Your task to perform on an android device: What's a good restaurant in Houston? Image 0: 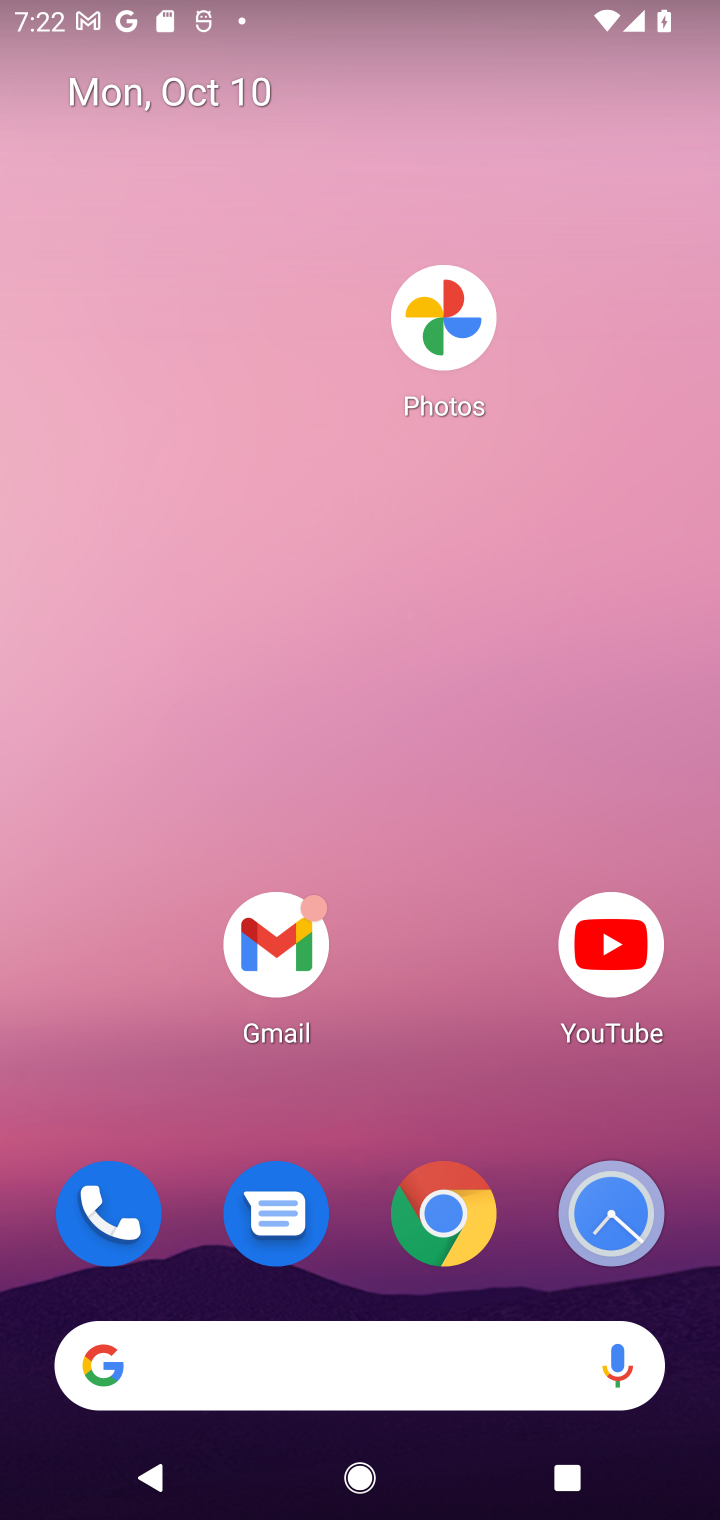
Step 0: click (375, 1324)
Your task to perform on an android device: What's a good restaurant in Houston? Image 1: 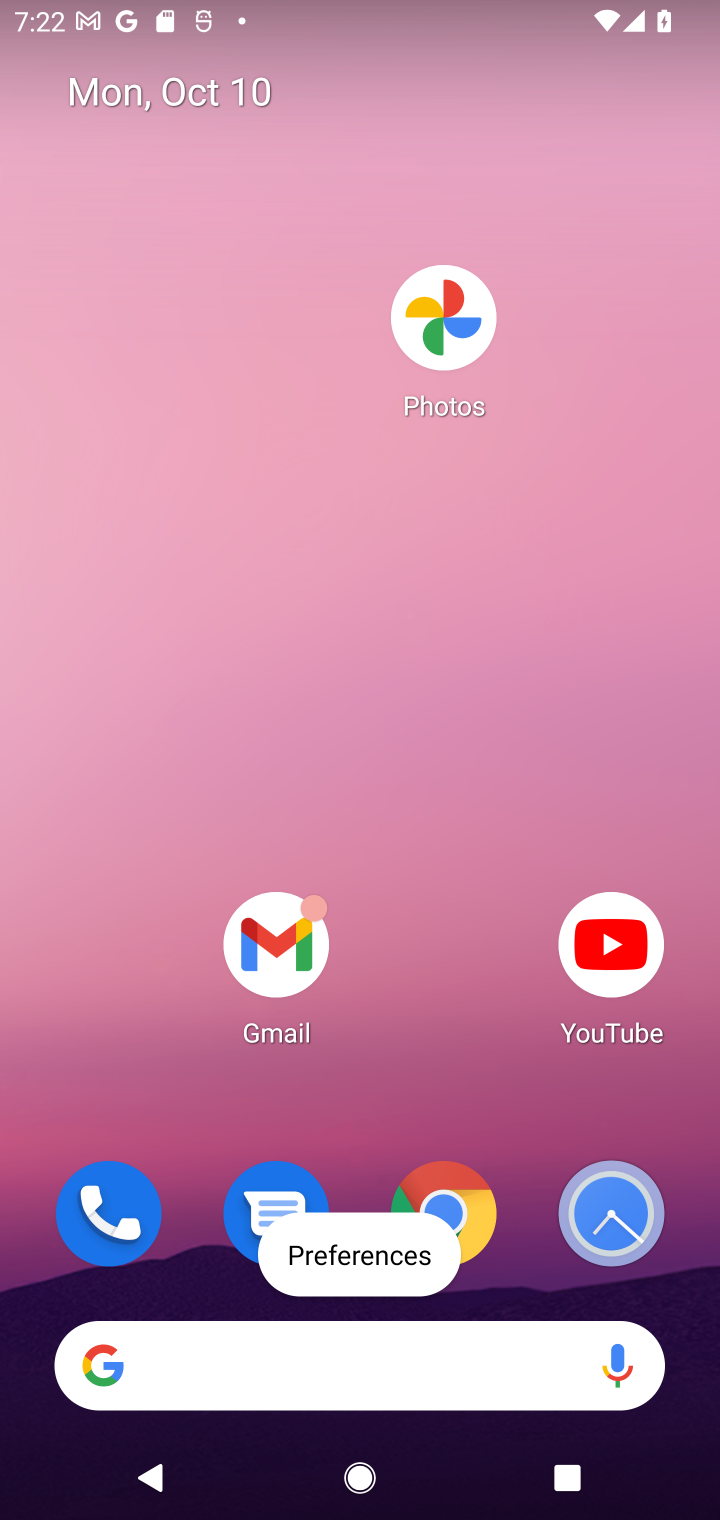
Step 1: click (373, 1343)
Your task to perform on an android device: What's a good restaurant in Houston? Image 2: 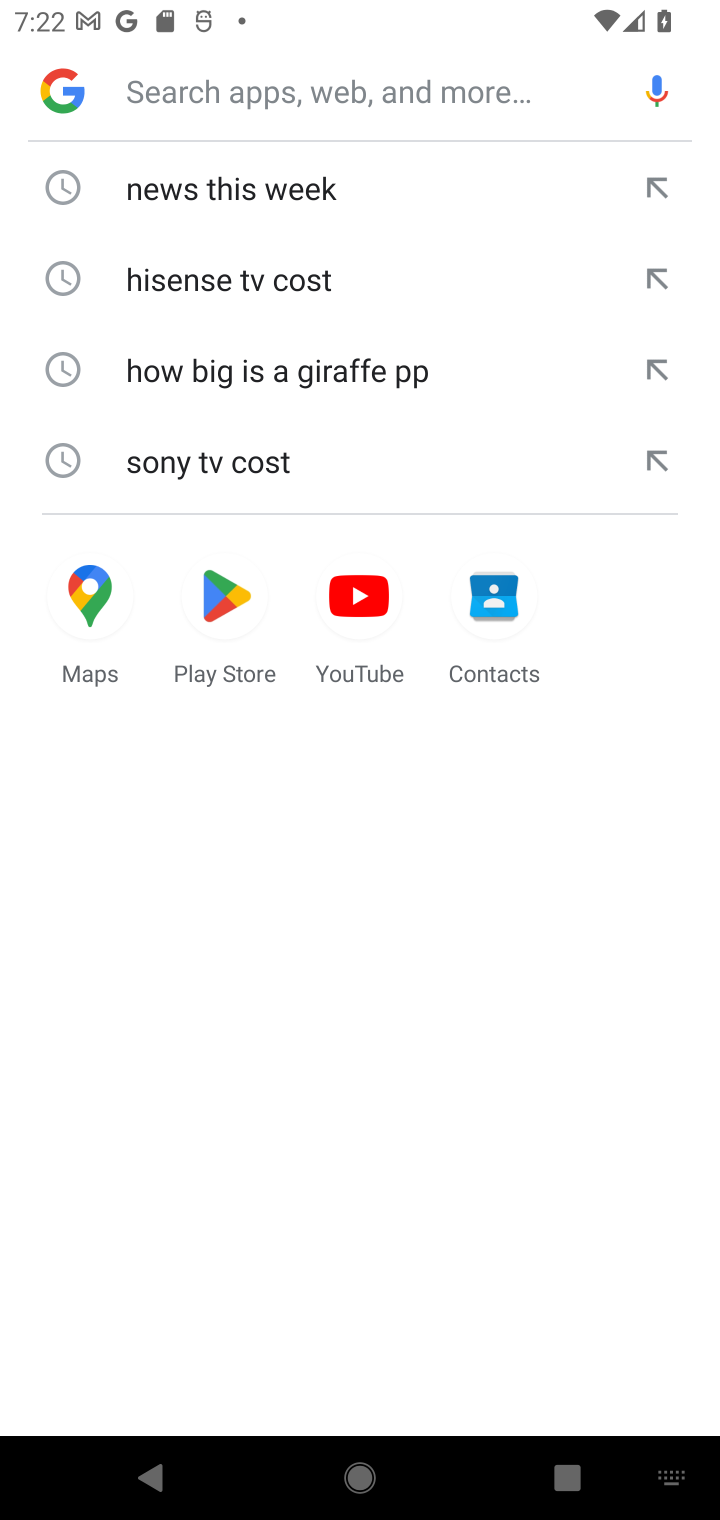
Step 2: type "good restaurant in Houston"
Your task to perform on an android device: What's a good restaurant in Houston? Image 3: 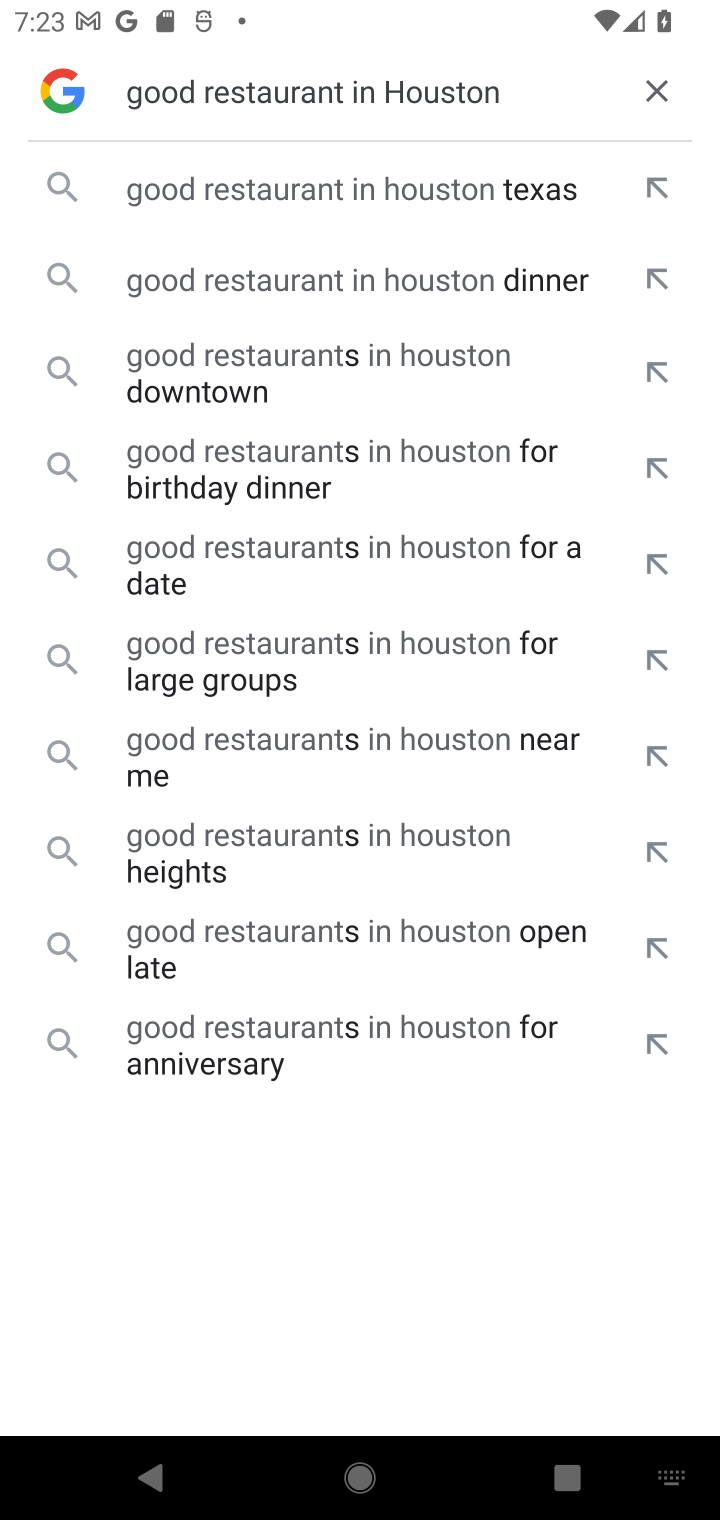
Step 3: click (348, 188)
Your task to perform on an android device: What's a good restaurant in Houston? Image 4: 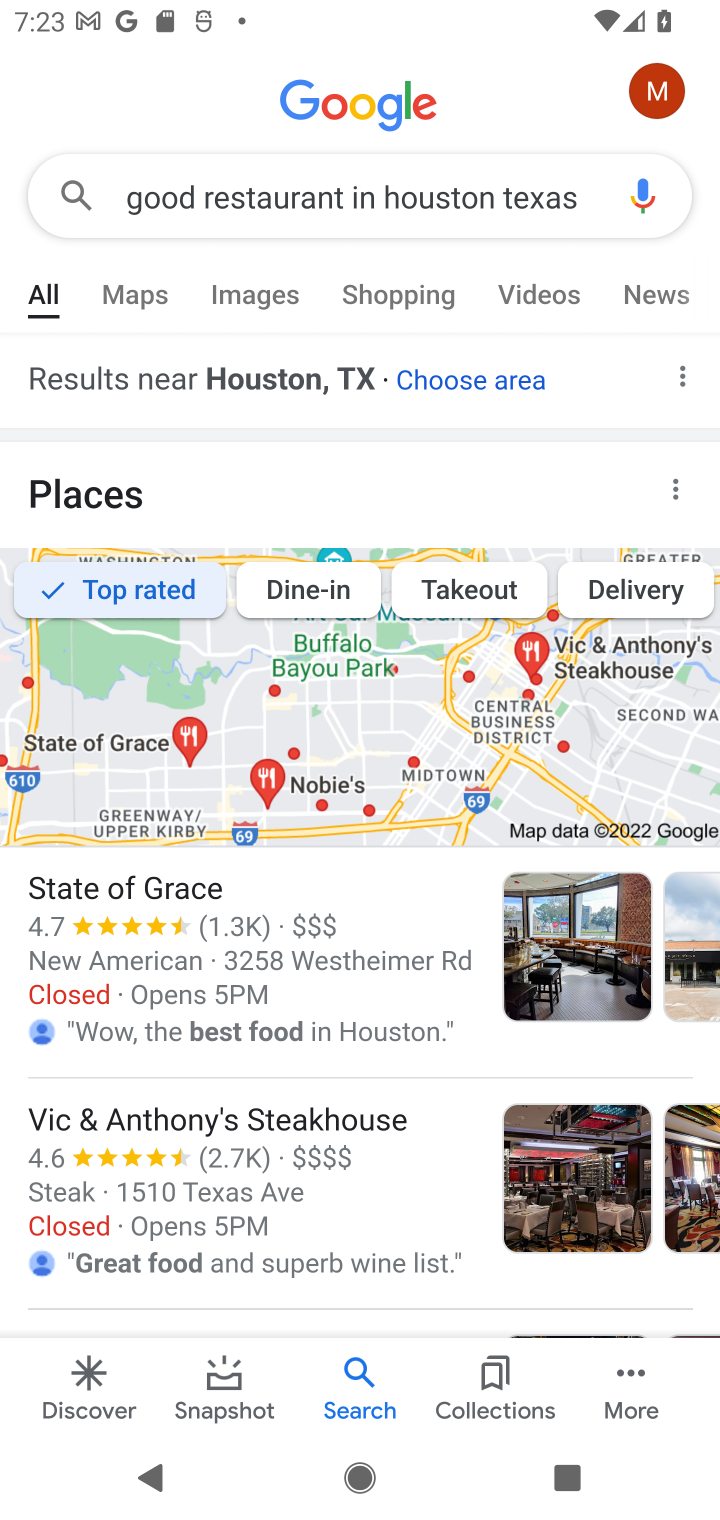
Step 4: task complete